Your task to perform on an android device: search for starred emails in the gmail app Image 0: 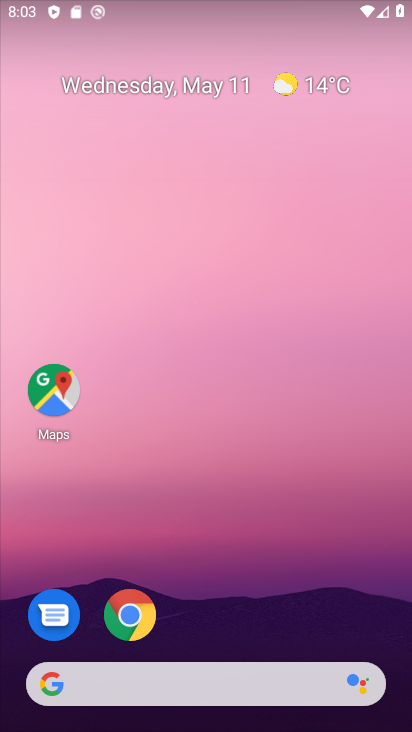
Step 0: drag from (310, 614) to (286, 284)
Your task to perform on an android device: search for starred emails in the gmail app Image 1: 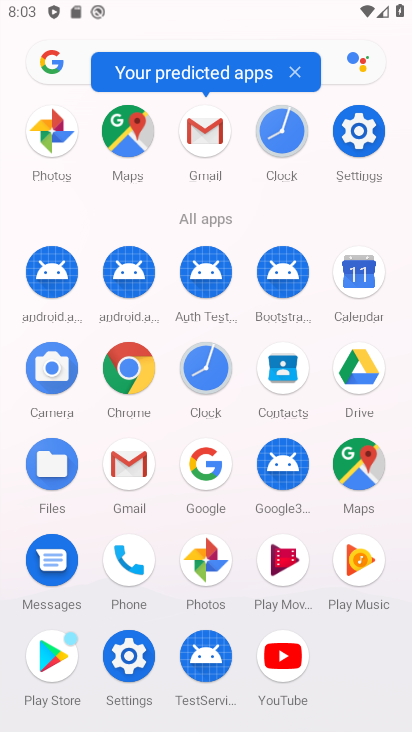
Step 1: click (212, 131)
Your task to perform on an android device: search for starred emails in the gmail app Image 2: 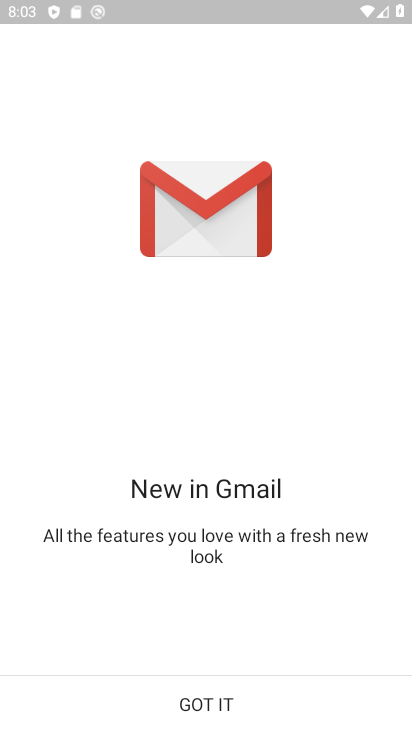
Step 2: click (267, 685)
Your task to perform on an android device: search for starred emails in the gmail app Image 3: 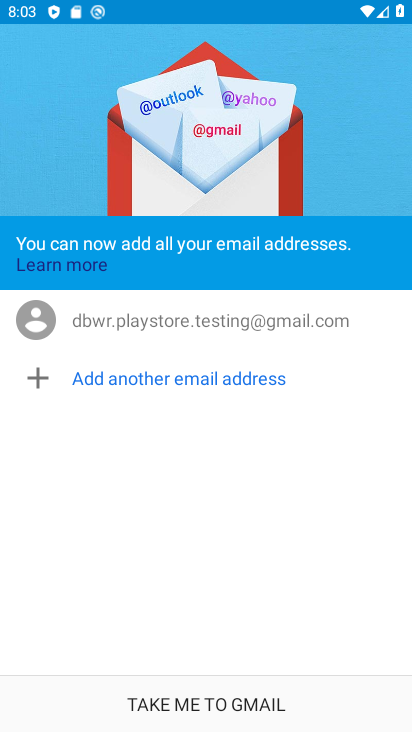
Step 3: click (203, 706)
Your task to perform on an android device: search for starred emails in the gmail app Image 4: 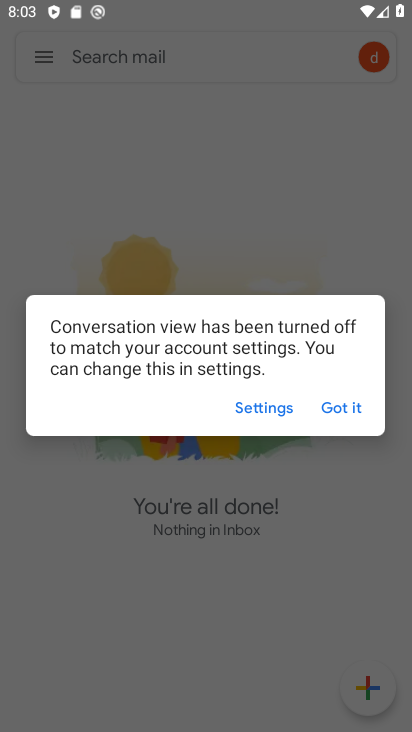
Step 4: click (347, 408)
Your task to perform on an android device: search for starred emails in the gmail app Image 5: 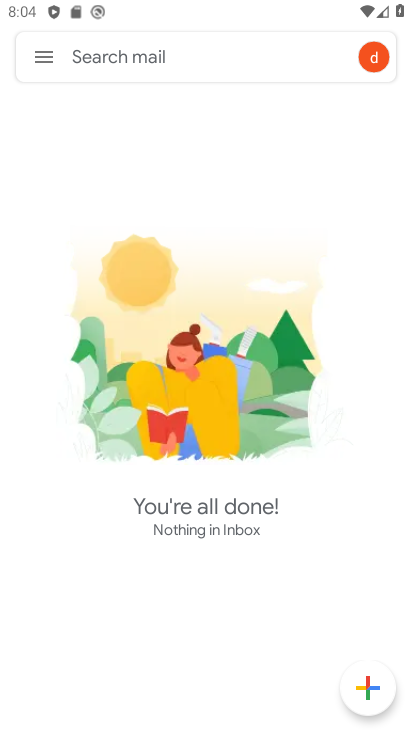
Step 5: click (43, 65)
Your task to perform on an android device: search for starred emails in the gmail app Image 6: 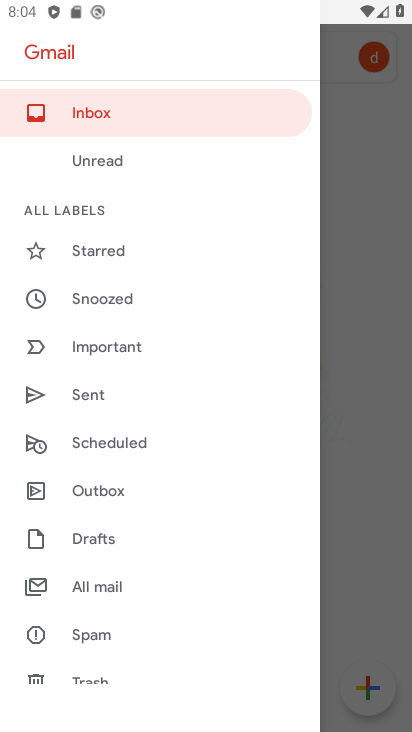
Step 6: click (165, 250)
Your task to perform on an android device: search for starred emails in the gmail app Image 7: 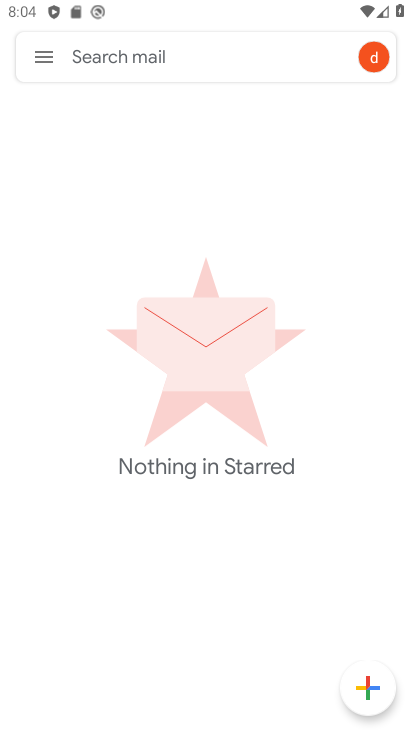
Step 7: task complete